Your task to perform on an android device: toggle priority inbox in the gmail app Image 0: 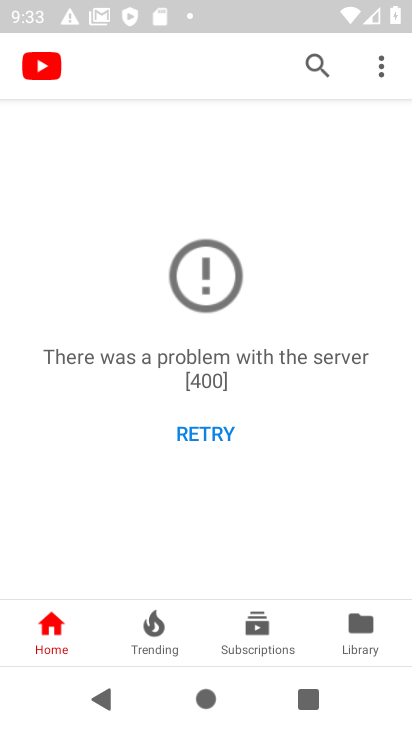
Step 0: press home button
Your task to perform on an android device: toggle priority inbox in the gmail app Image 1: 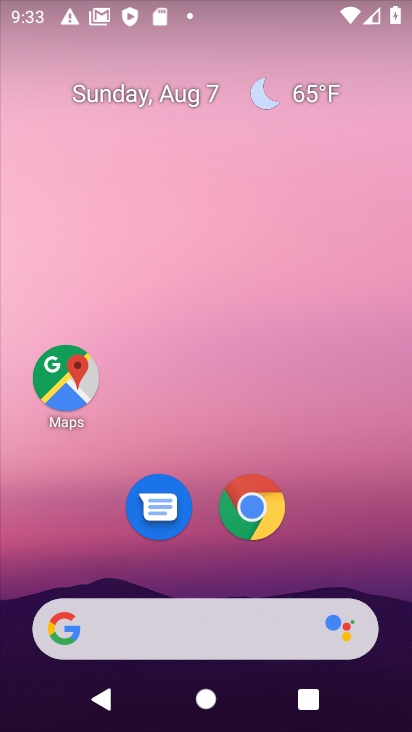
Step 1: drag from (402, 501) to (224, 28)
Your task to perform on an android device: toggle priority inbox in the gmail app Image 2: 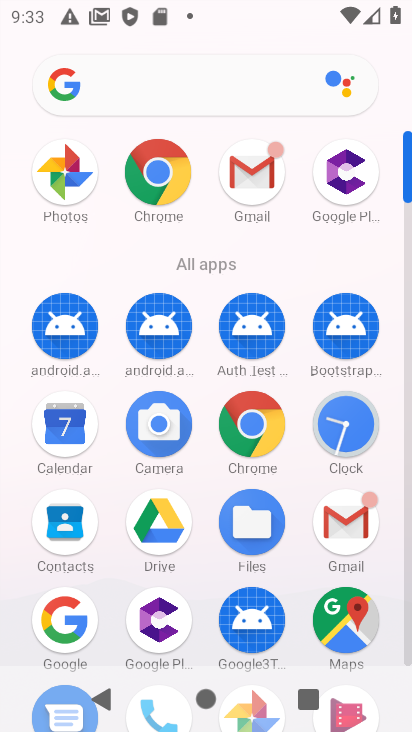
Step 2: click (253, 178)
Your task to perform on an android device: toggle priority inbox in the gmail app Image 3: 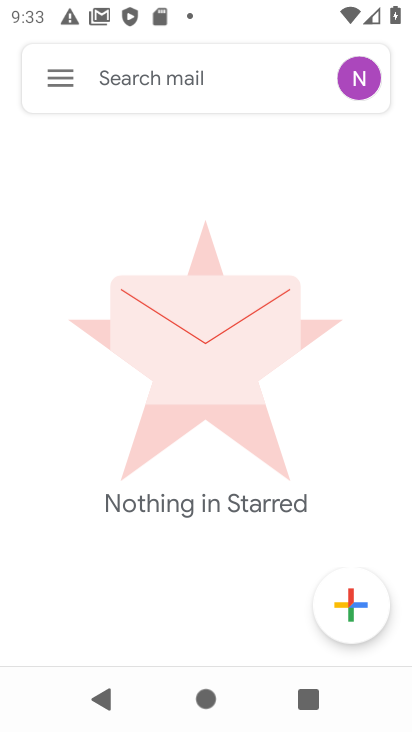
Step 3: click (62, 77)
Your task to perform on an android device: toggle priority inbox in the gmail app Image 4: 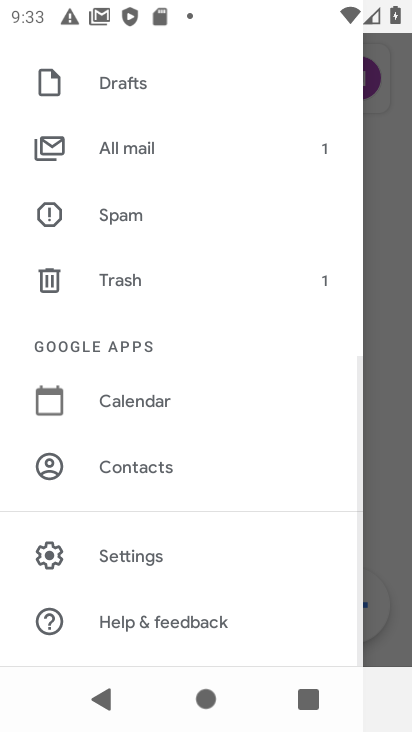
Step 4: click (132, 571)
Your task to perform on an android device: toggle priority inbox in the gmail app Image 5: 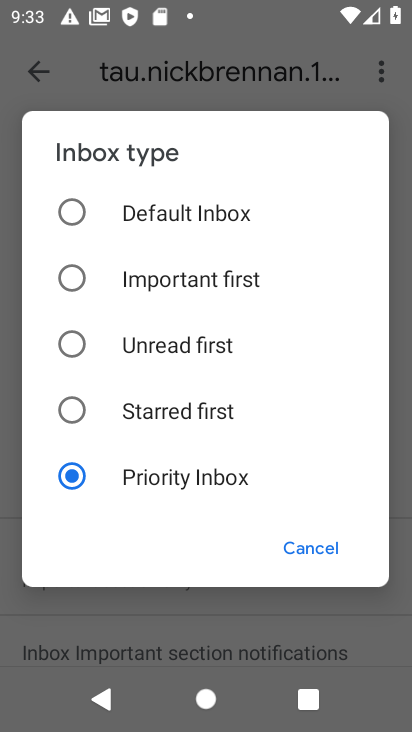
Step 5: click (221, 207)
Your task to perform on an android device: toggle priority inbox in the gmail app Image 6: 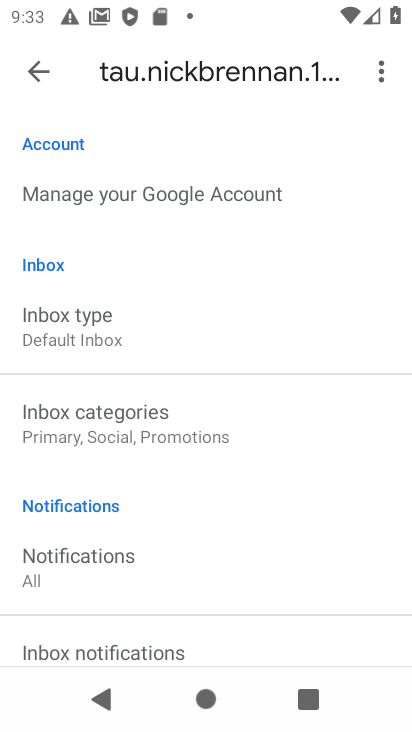
Step 6: task complete